Your task to perform on an android device: Open Reddit.com Image 0: 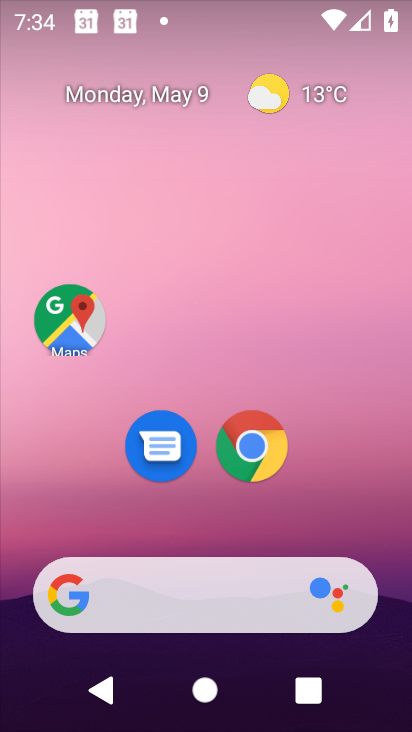
Step 0: click (238, 450)
Your task to perform on an android device: Open Reddit.com Image 1: 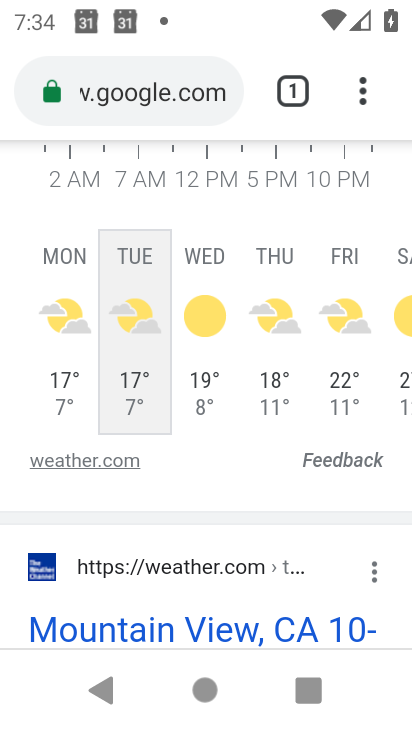
Step 1: click (168, 91)
Your task to perform on an android device: Open Reddit.com Image 2: 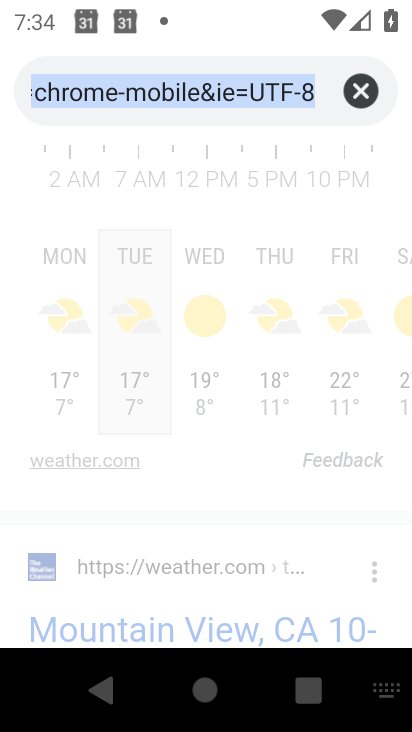
Step 2: type "Reddit.com"
Your task to perform on an android device: Open Reddit.com Image 3: 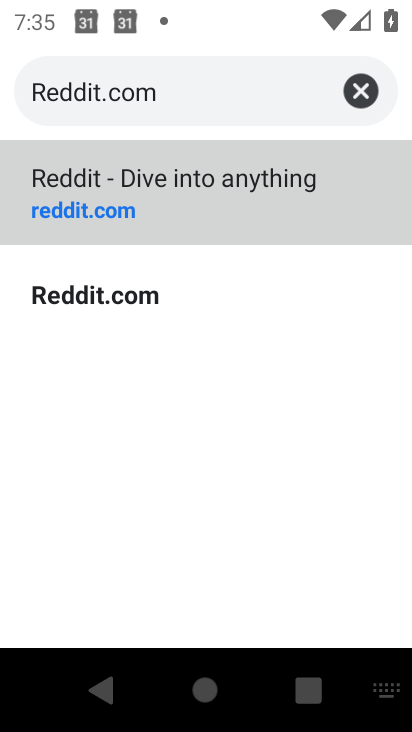
Step 3: click (146, 216)
Your task to perform on an android device: Open Reddit.com Image 4: 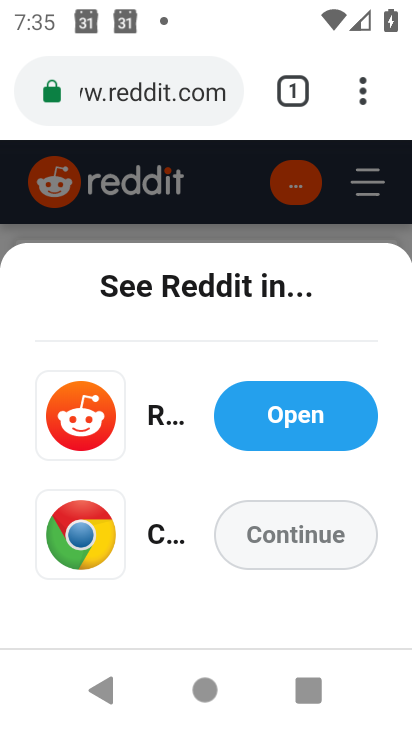
Step 4: task complete